Your task to perform on an android device: turn on priority inbox in the gmail app Image 0: 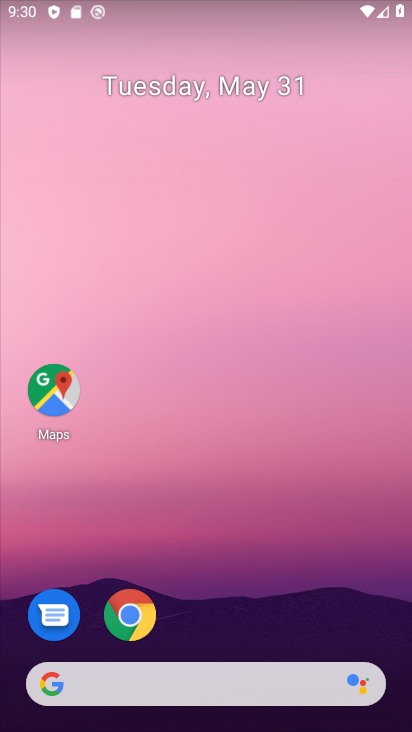
Step 0: press home button
Your task to perform on an android device: turn on priority inbox in the gmail app Image 1: 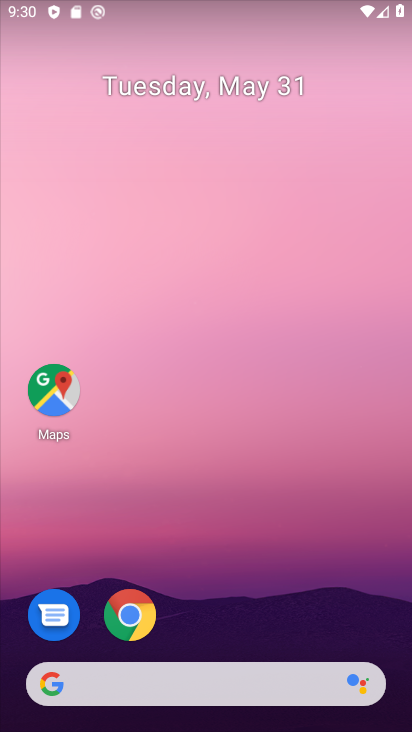
Step 1: drag from (235, 610) to (248, 0)
Your task to perform on an android device: turn on priority inbox in the gmail app Image 2: 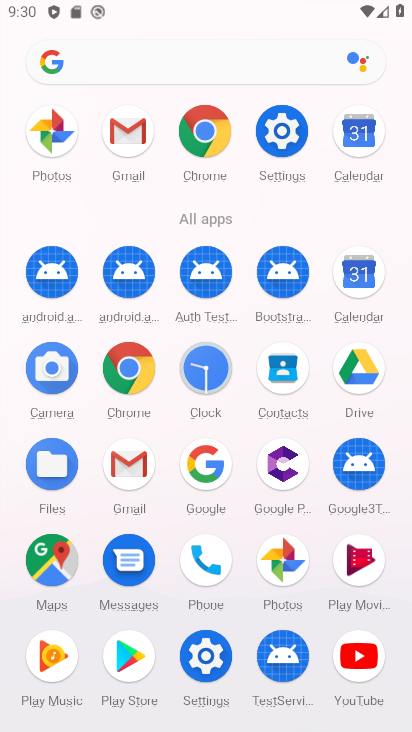
Step 2: click (121, 459)
Your task to perform on an android device: turn on priority inbox in the gmail app Image 3: 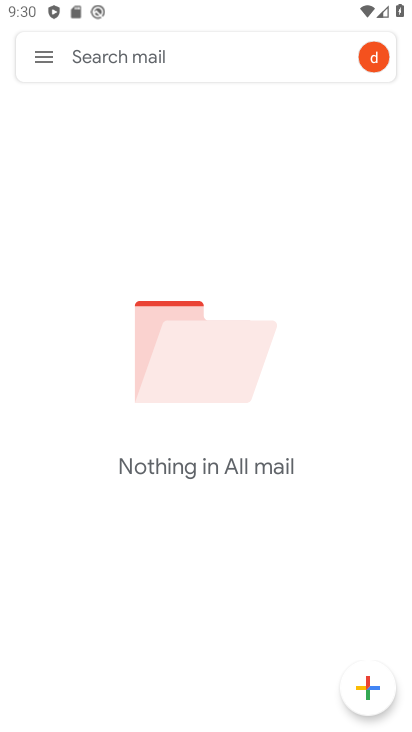
Step 3: click (49, 57)
Your task to perform on an android device: turn on priority inbox in the gmail app Image 4: 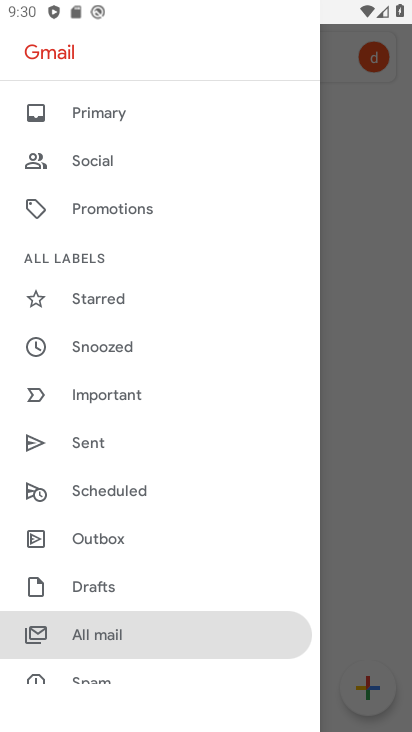
Step 4: drag from (122, 534) to (138, 98)
Your task to perform on an android device: turn on priority inbox in the gmail app Image 5: 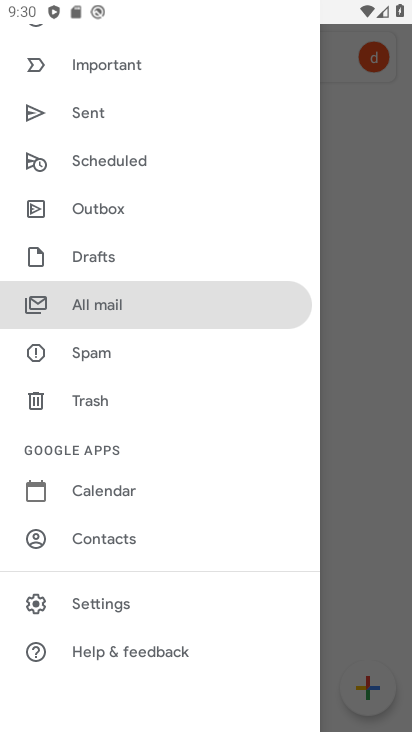
Step 5: click (107, 597)
Your task to perform on an android device: turn on priority inbox in the gmail app Image 6: 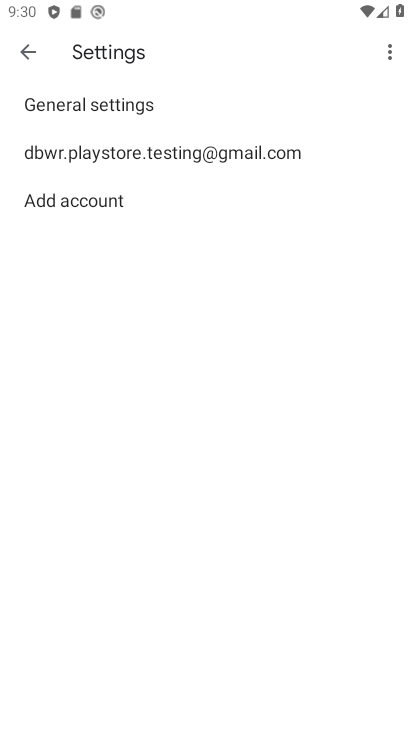
Step 6: click (54, 147)
Your task to perform on an android device: turn on priority inbox in the gmail app Image 7: 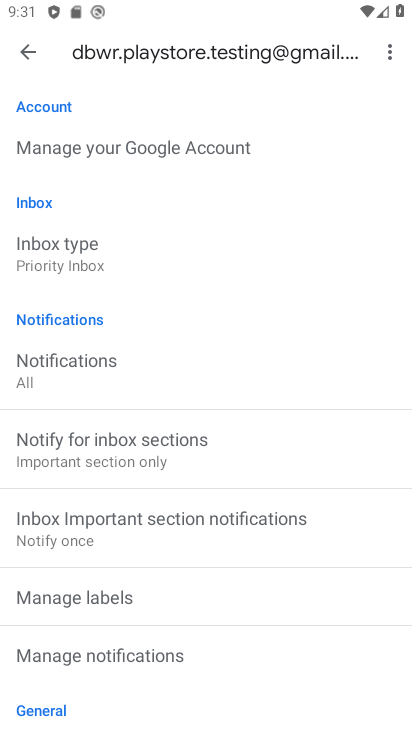
Step 7: click (57, 262)
Your task to perform on an android device: turn on priority inbox in the gmail app Image 8: 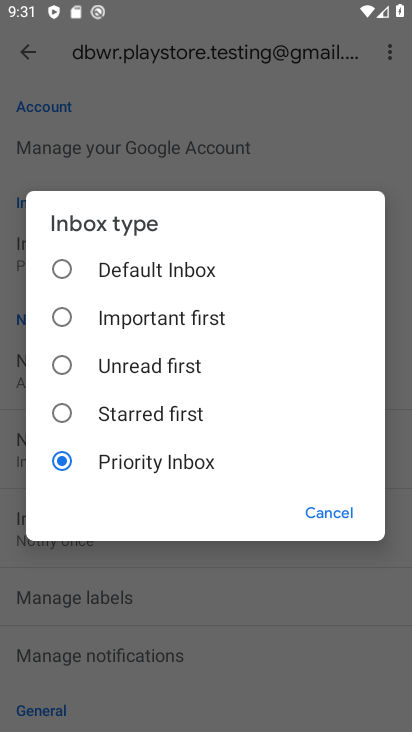
Step 8: click (116, 463)
Your task to perform on an android device: turn on priority inbox in the gmail app Image 9: 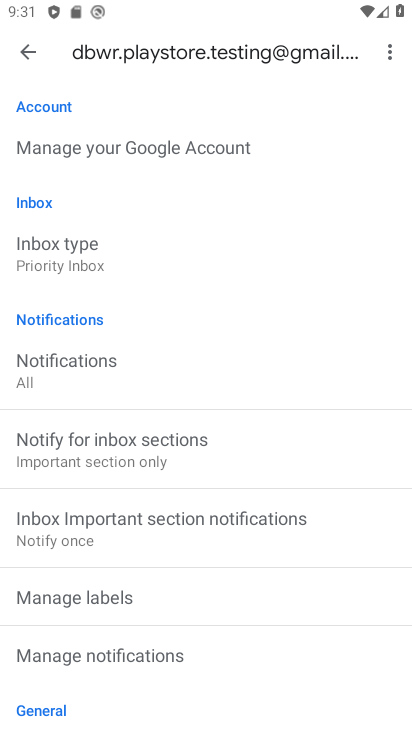
Step 9: task complete